Your task to perform on an android device: turn off picture-in-picture Image 0: 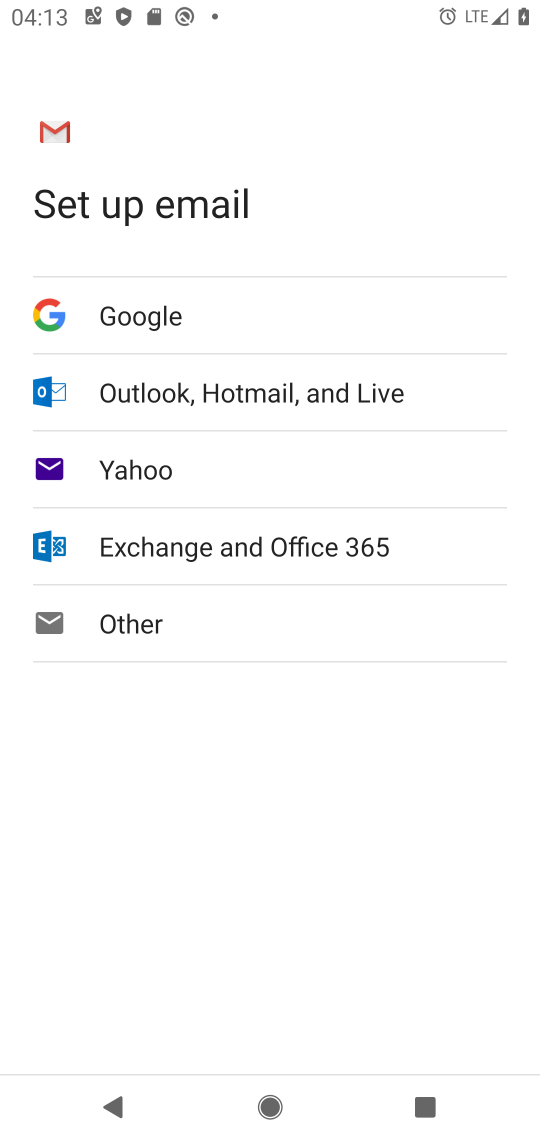
Step 0: press back button
Your task to perform on an android device: turn off picture-in-picture Image 1: 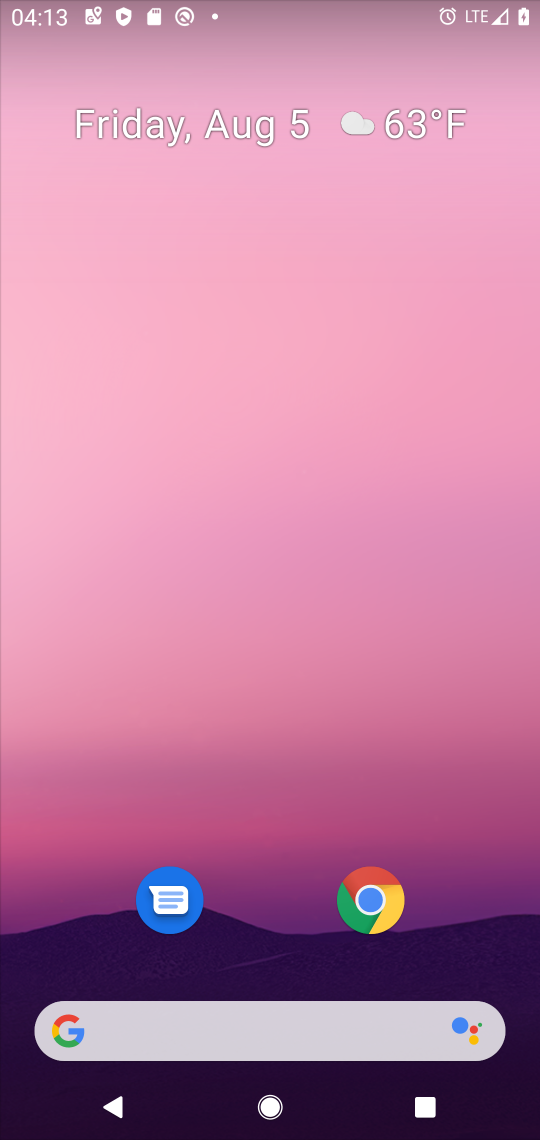
Step 1: drag from (263, 923) to (383, 52)
Your task to perform on an android device: turn off picture-in-picture Image 2: 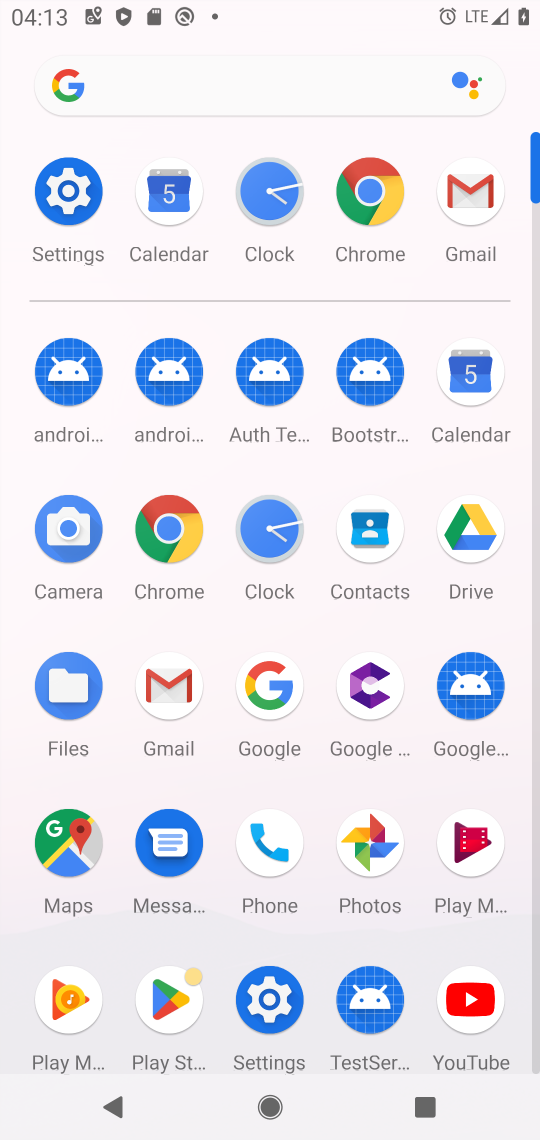
Step 2: click (64, 193)
Your task to perform on an android device: turn off picture-in-picture Image 3: 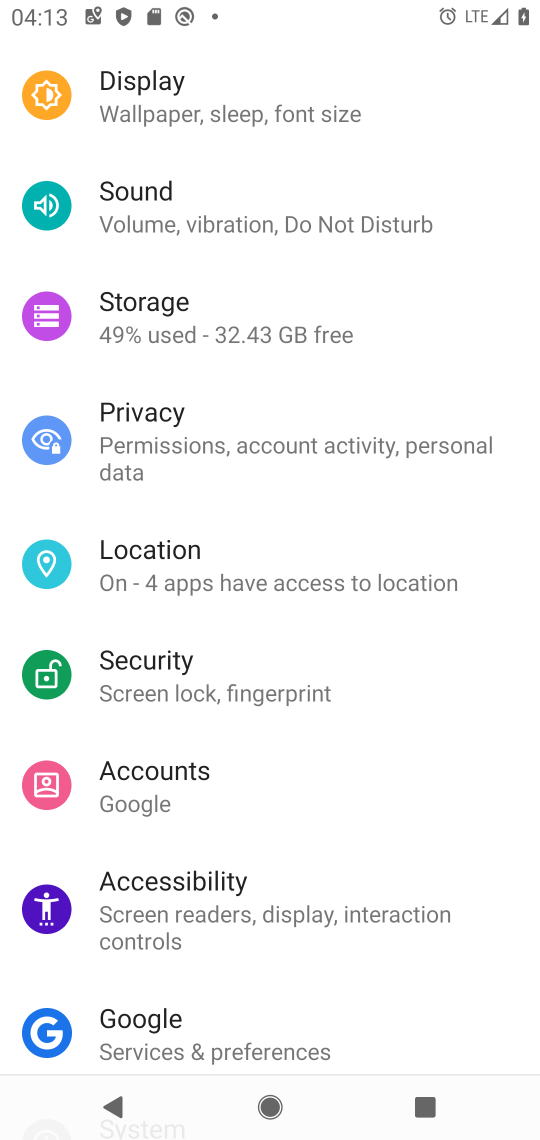
Step 3: drag from (373, 112) to (353, 1099)
Your task to perform on an android device: turn off picture-in-picture Image 4: 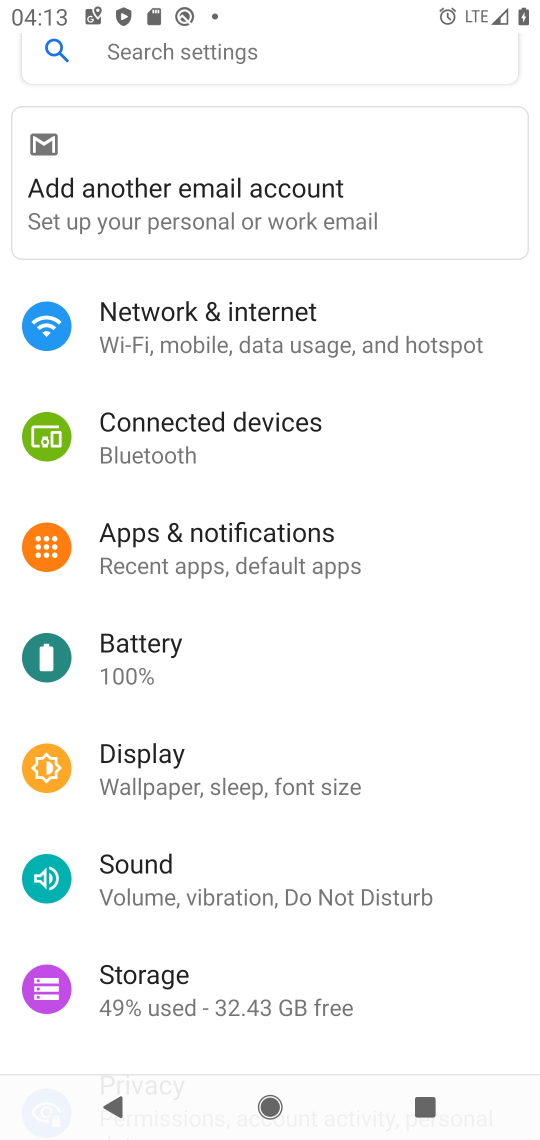
Step 4: click (267, 559)
Your task to perform on an android device: turn off picture-in-picture Image 5: 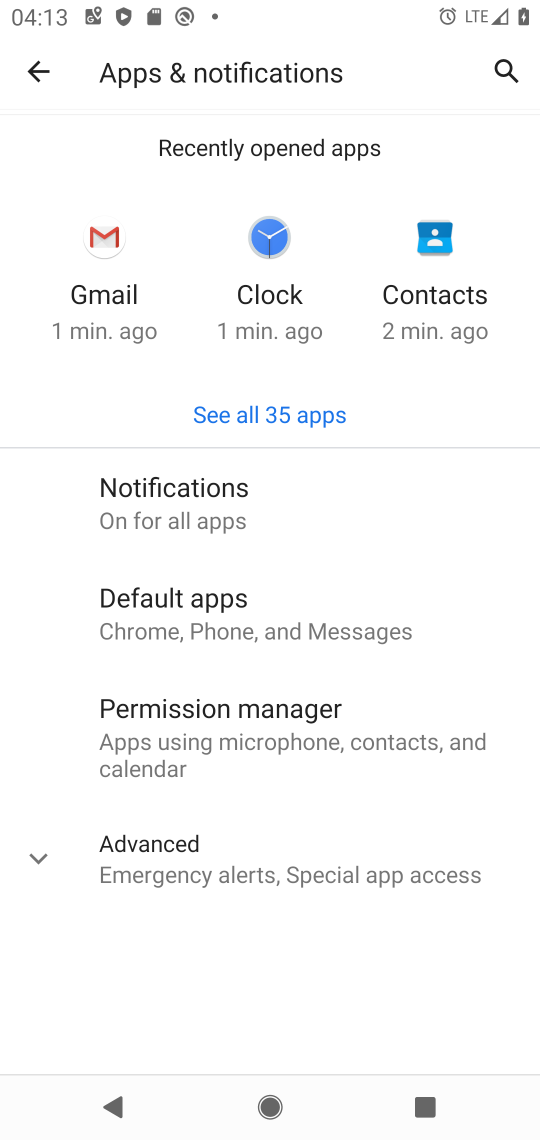
Step 5: click (197, 865)
Your task to perform on an android device: turn off picture-in-picture Image 6: 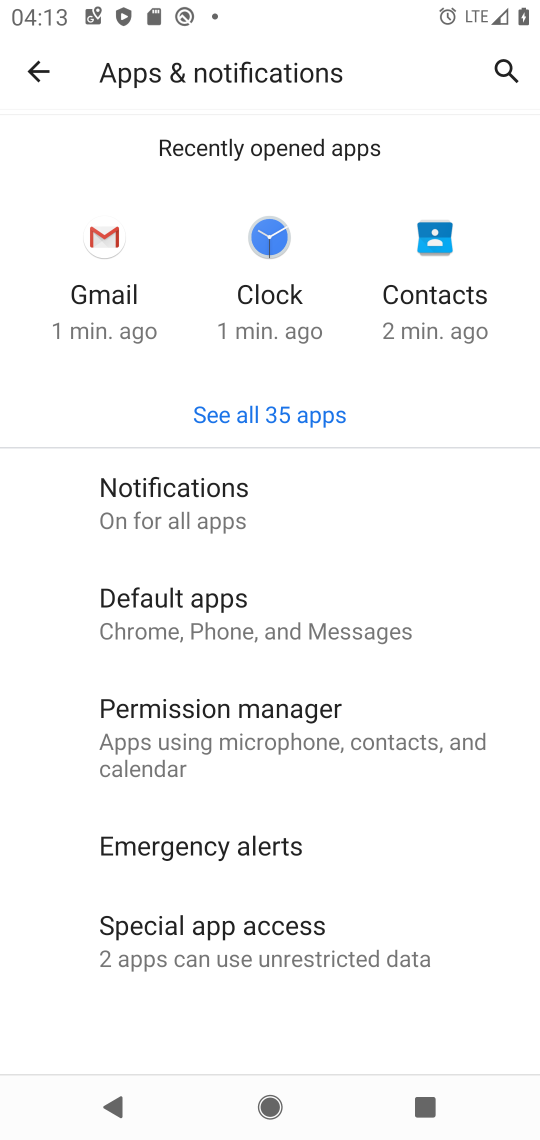
Step 6: drag from (201, 942) to (324, 250)
Your task to perform on an android device: turn off picture-in-picture Image 7: 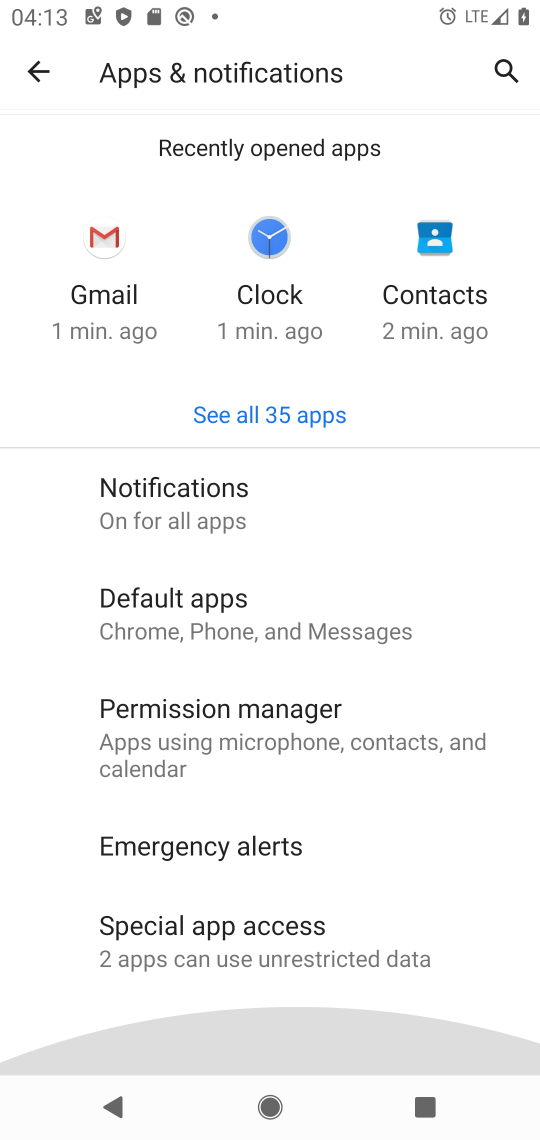
Step 7: click (205, 927)
Your task to perform on an android device: turn off picture-in-picture Image 8: 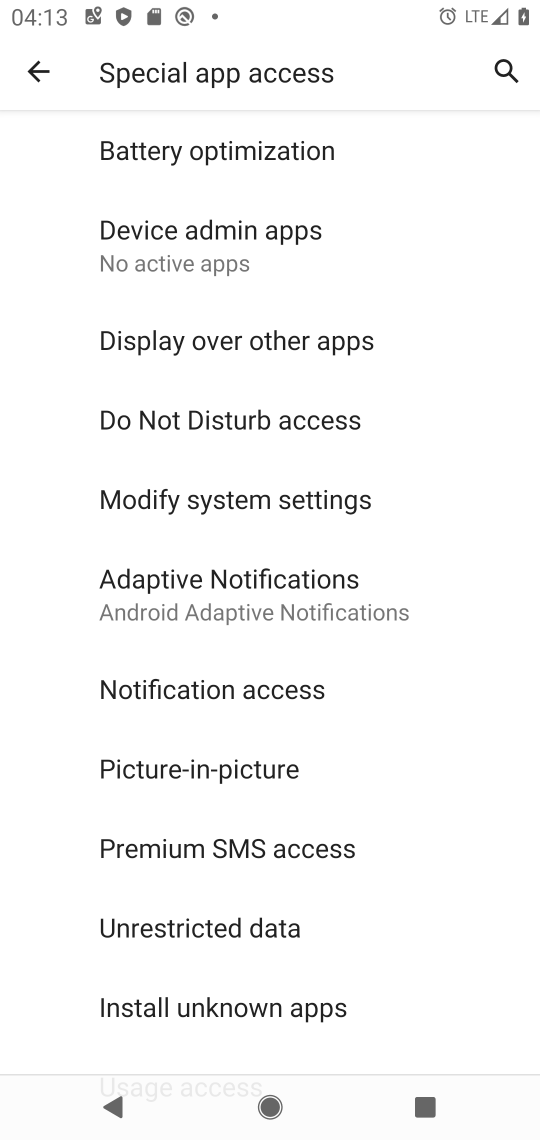
Step 8: click (172, 774)
Your task to perform on an android device: turn off picture-in-picture Image 9: 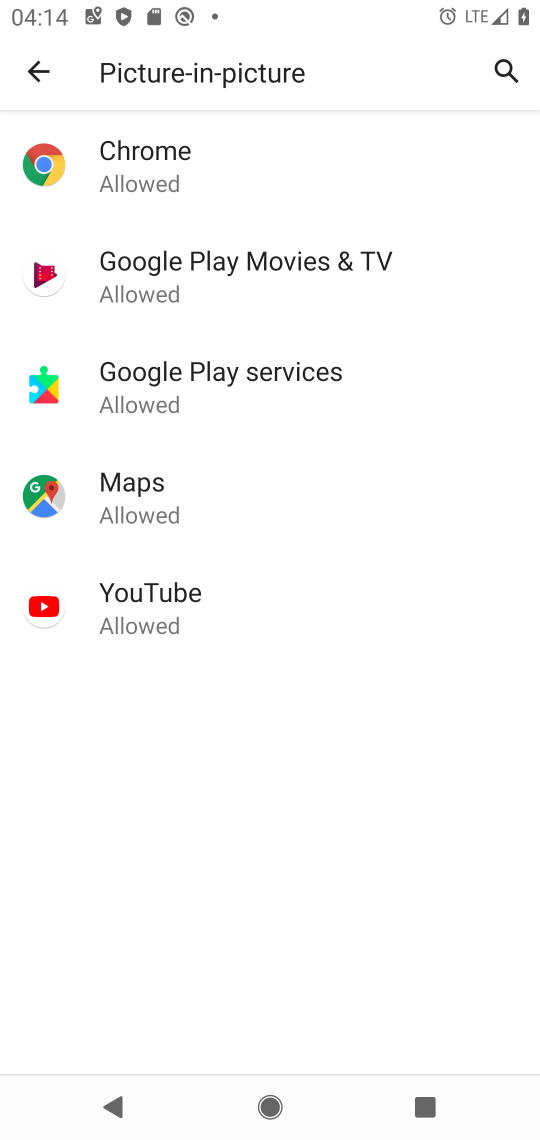
Step 9: click (166, 187)
Your task to perform on an android device: turn off picture-in-picture Image 10: 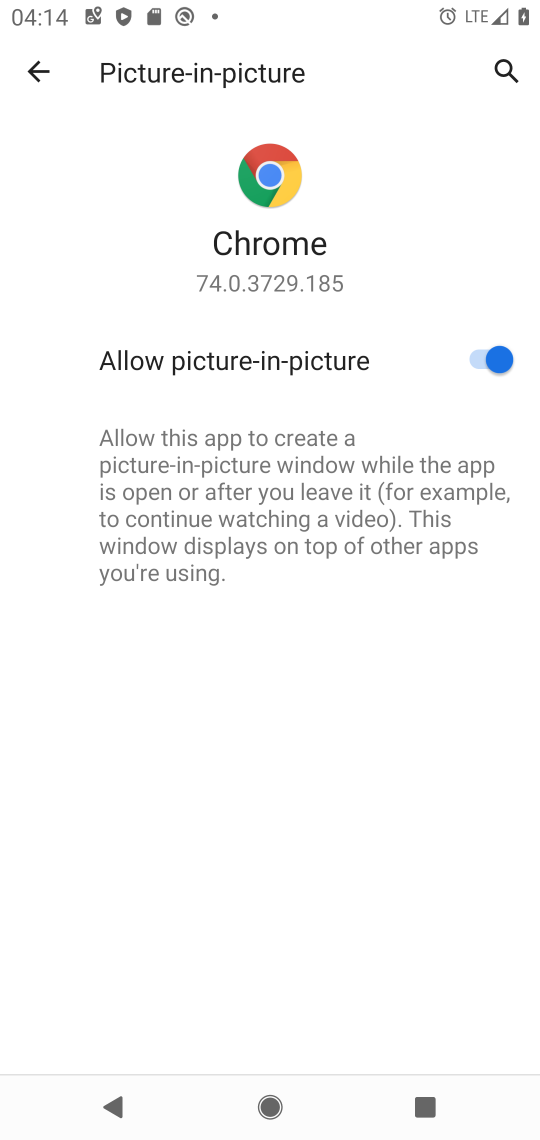
Step 10: click (503, 359)
Your task to perform on an android device: turn off picture-in-picture Image 11: 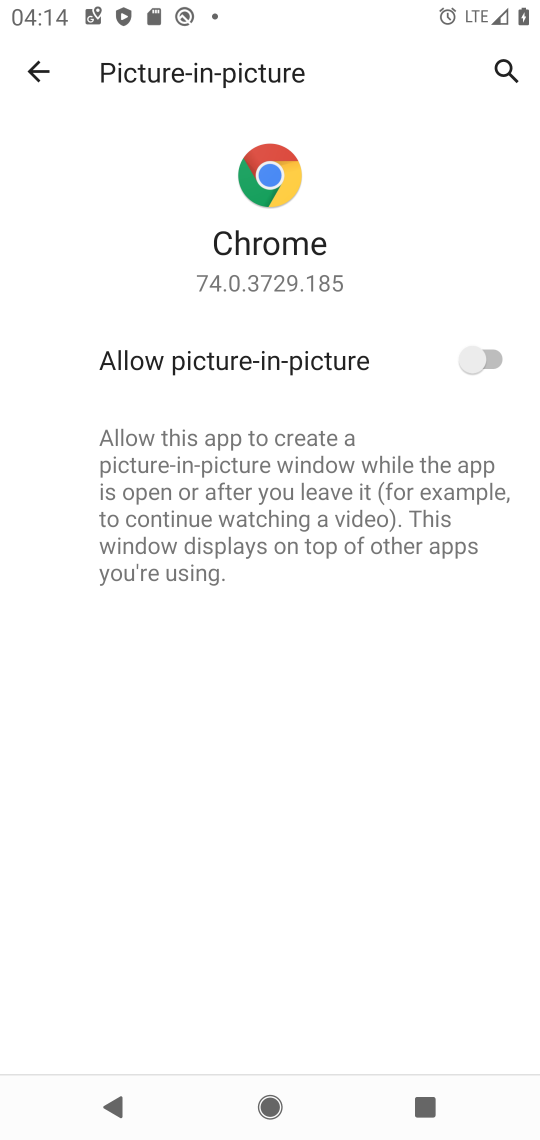
Step 11: task complete